Your task to perform on an android device: turn on the 12-hour format for clock Image 0: 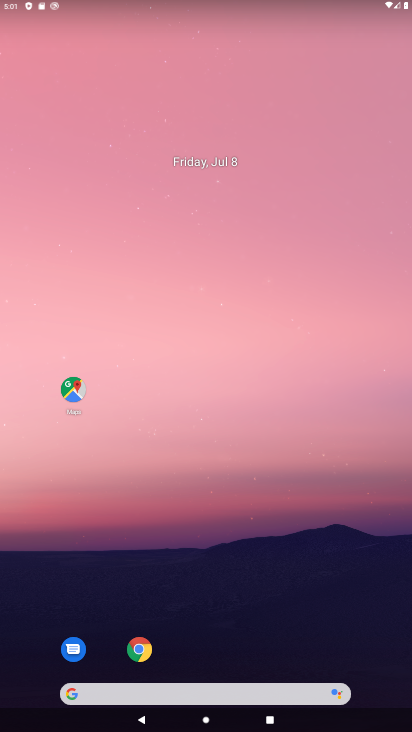
Step 0: drag from (282, 552) to (218, 79)
Your task to perform on an android device: turn on the 12-hour format for clock Image 1: 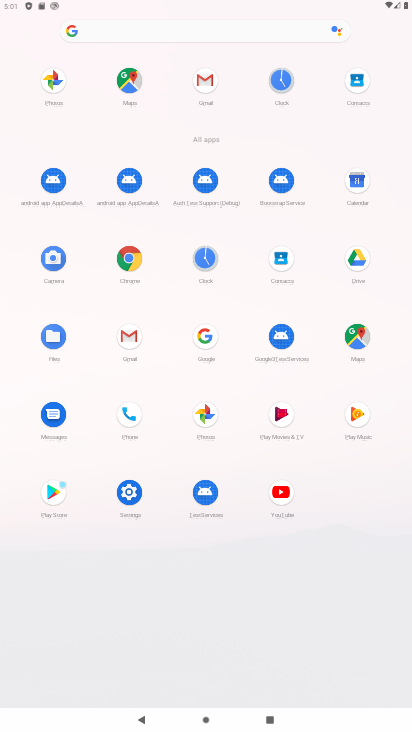
Step 1: click (206, 256)
Your task to perform on an android device: turn on the 12-hour format for clock Image 2: 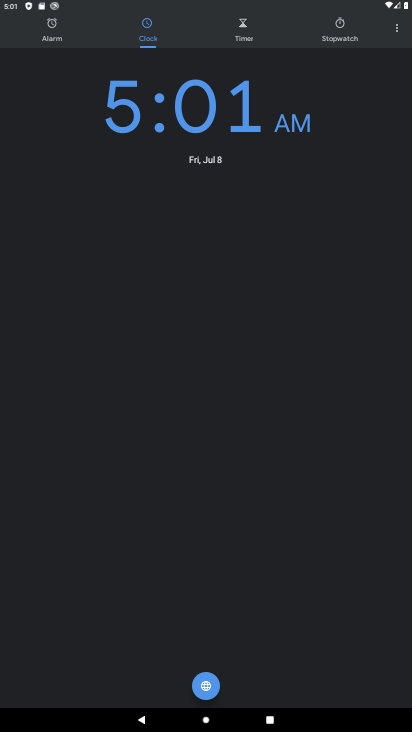
Step 2: click (403, 28)
Your task to perform on an android device: turn on the 12-hour format for clock Image 3: 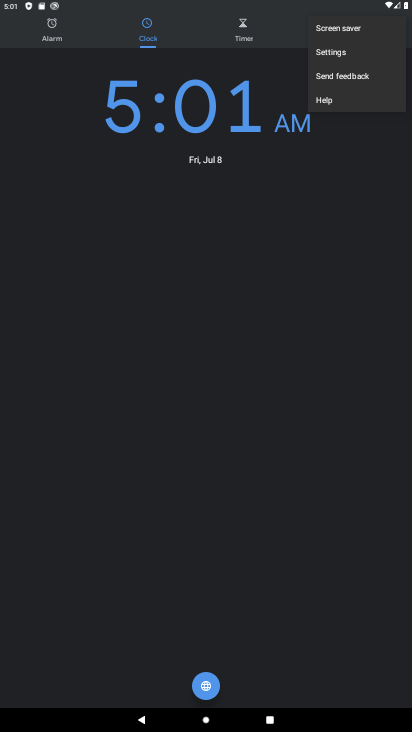
Step 3: click (335, 55)
Your task to perform on an android device: turn on the 12-hour format for clock Image 4: 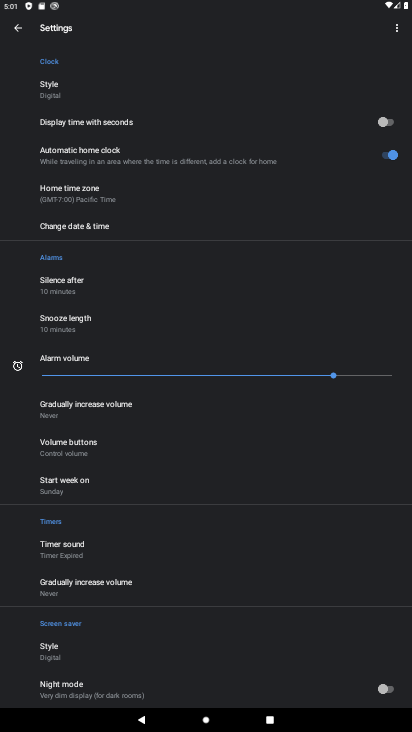
Step 4: click (96, 227)
Your task to perform on an android device: turn on the 12-hour format for clock Image 5: 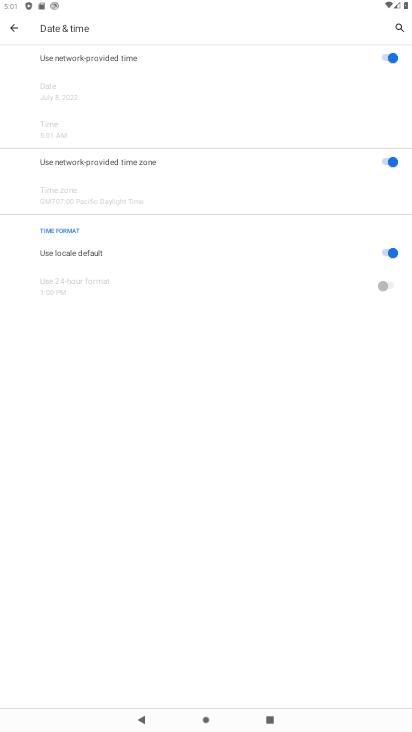
Step 5: task complete